Your task to perform on an android device: turn on improve location accuracy Image 0: 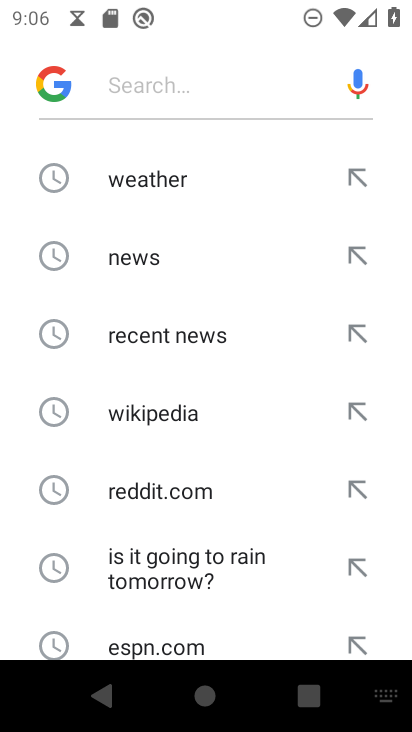
Step 0: press back button
Your task to perform on an android device: turn on improve location accuracy Image 1: 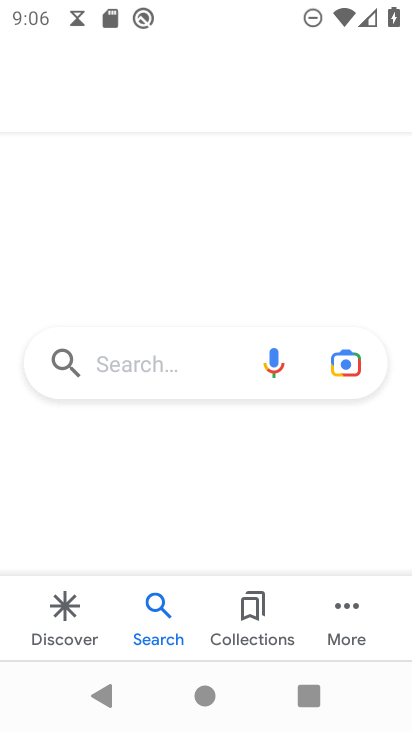
Step 1: press back button
Your task to perform on an android device: turn on improve location accuracy Image 2: 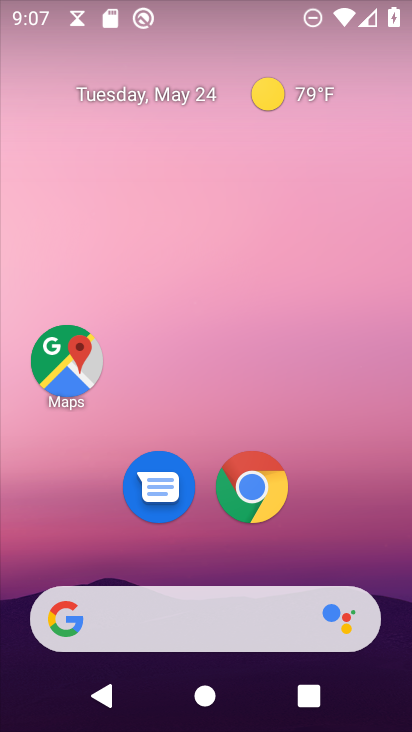
Step 2: drag from (0, 640) to (224, 144)
Your task to perform on an android device: turn on improve location accuracy Image 3: 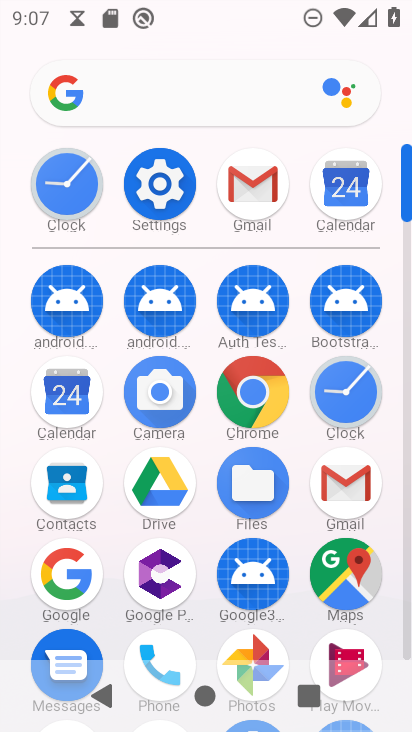
Step 3: click (154, 177)
Your task to perform on an android device: turn on improve location accuracy Image 4: 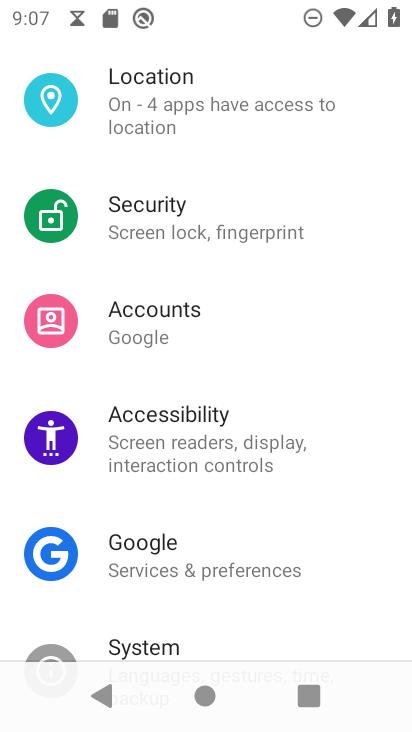
Step 4: click (220, 96)
Your task to perform on an android device: turn on improve location accuracy Image 5: 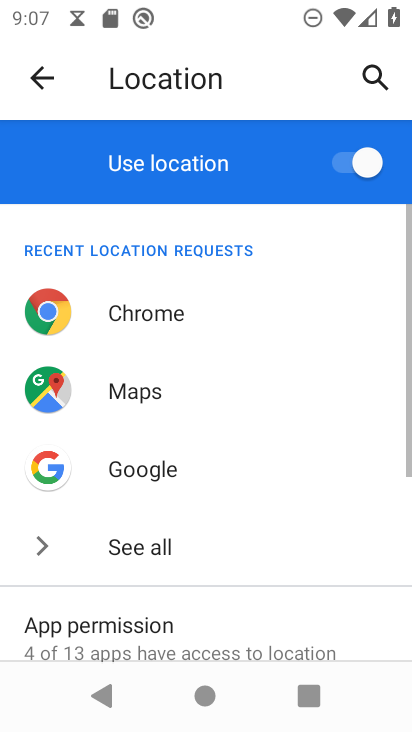
Step 5: drag from (9, 573) to (186, 187)
Your task to perform on an android device: turn on improve location accuracy Image 6: 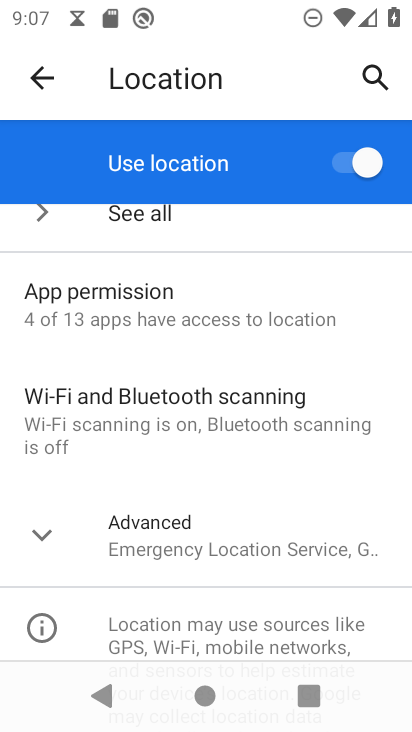
Step 6: click (171, 548)
Your task to perform on an android device: turn on improve location accuracy Image 7: 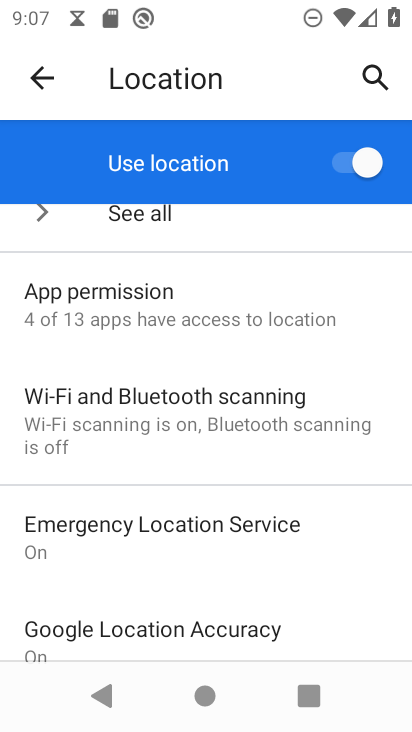
Step 7: click (106, 637)
Your task to perform on an android device: turn on improve location accuracy Image 8: 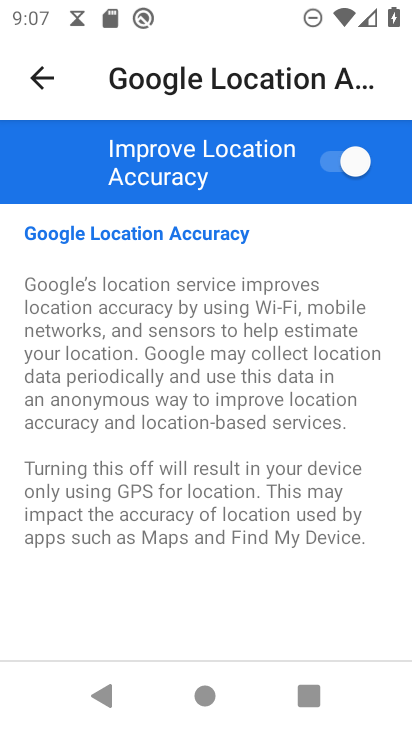
Step 8: task complete